Your task to perform on an android device: Go to Yahoo.com Image 0: 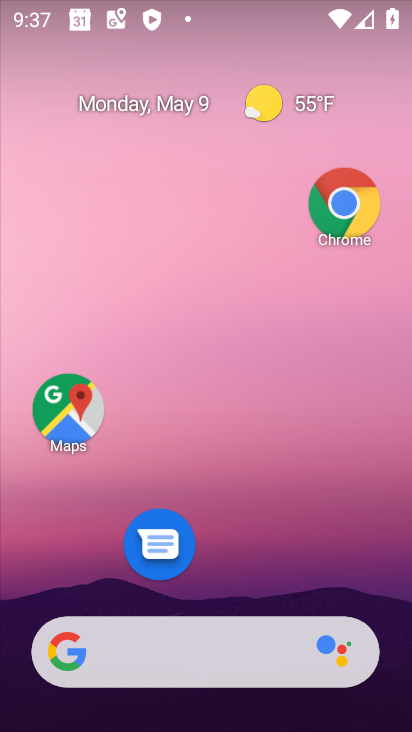
Step 0: click (350, 218)
Your task to perform on an android device: Go to Yahoo.com Image 1: 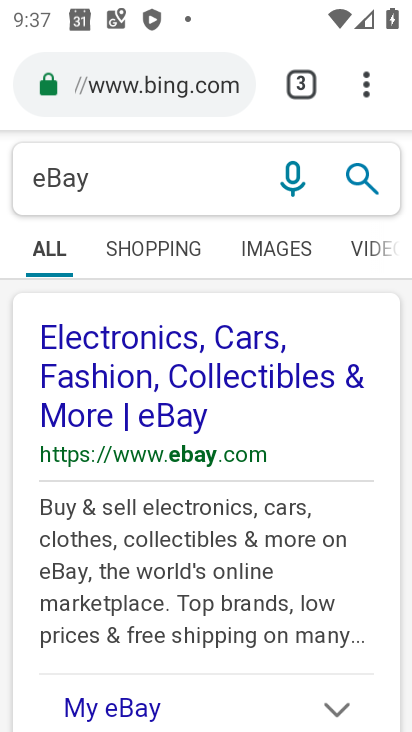
Step 1: click (287, 84)
Your task to perform on an android device: Go to Yahoo.com Image 2: 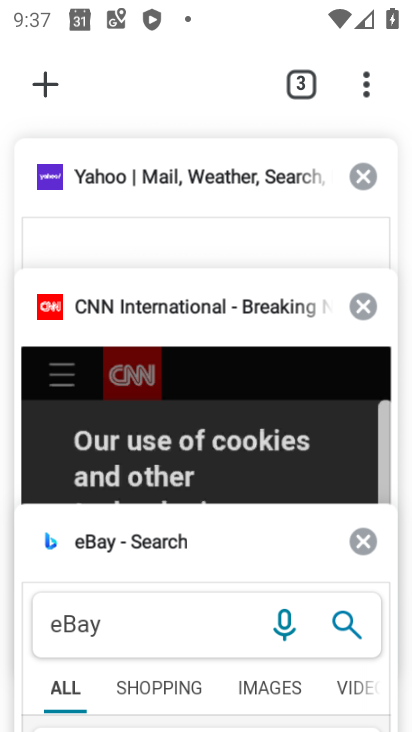
Step 2: click (184, 237)
Your task to perform on an android device: Go to Yahoo.com Image 3: 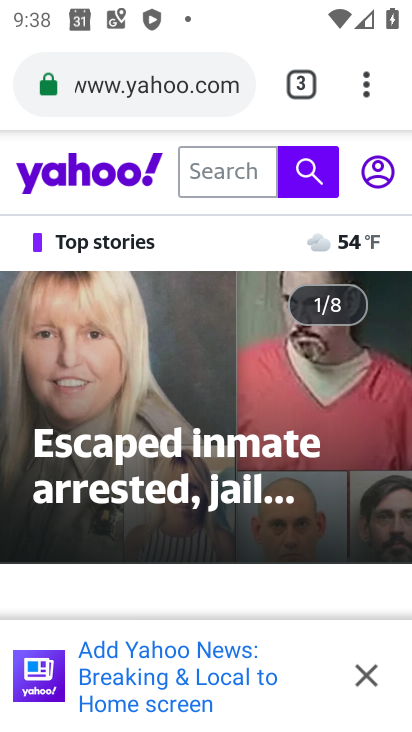
Step 3: task complete